Your task to perform on an android device: Add razer blade to the cart on target, then select checkout. Image 0: 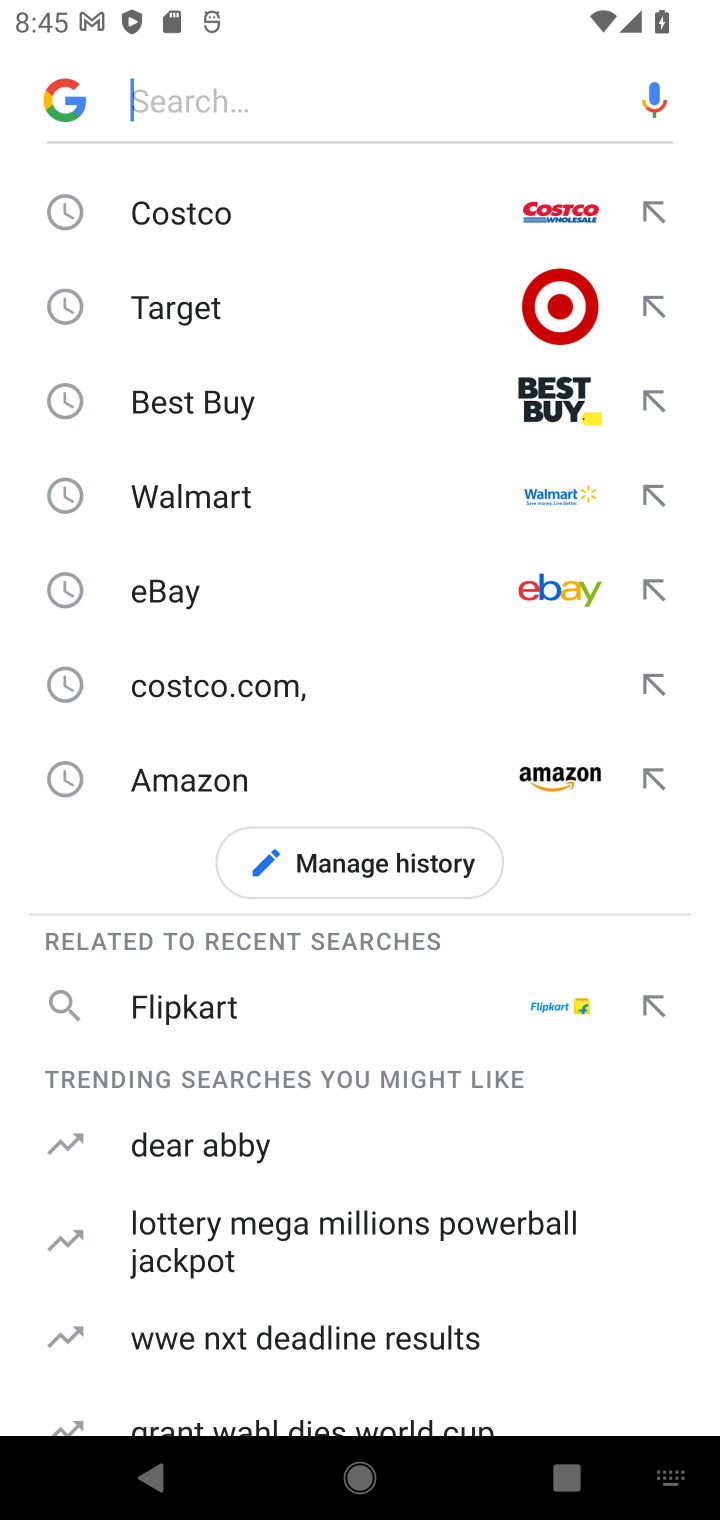
Step 0: click (241, 500)
Your task to perform on an android device: Add razer blade to the cart on target, then select checkout. Image 1: 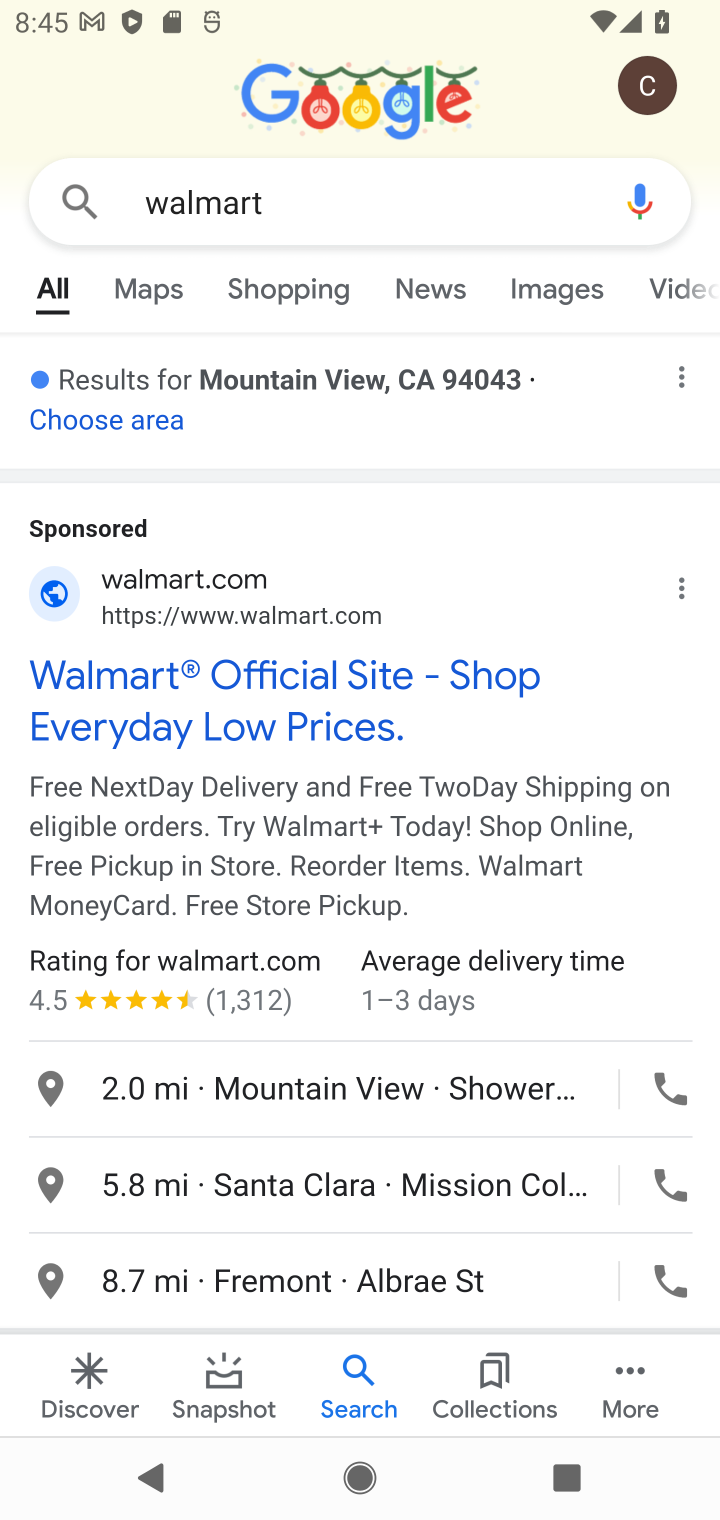
Step 1: click (168, 717)
Your task to perform on an android device: Add razer blade to the cart on target, then select checkout. Image 2: 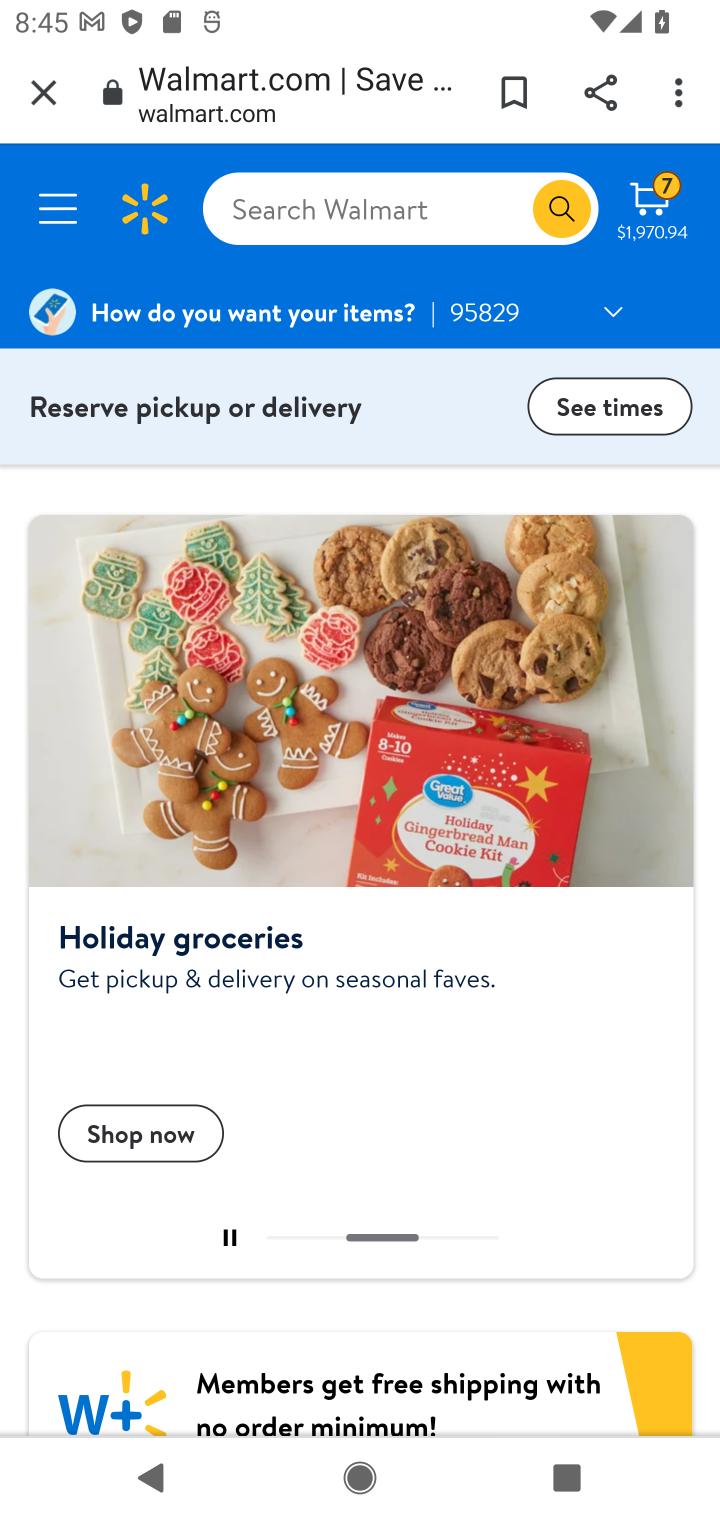
Step 2: click (317, 223)
Your task to perform on an android device: Add razer blade to the cart on target, then select checkout. Image 3: 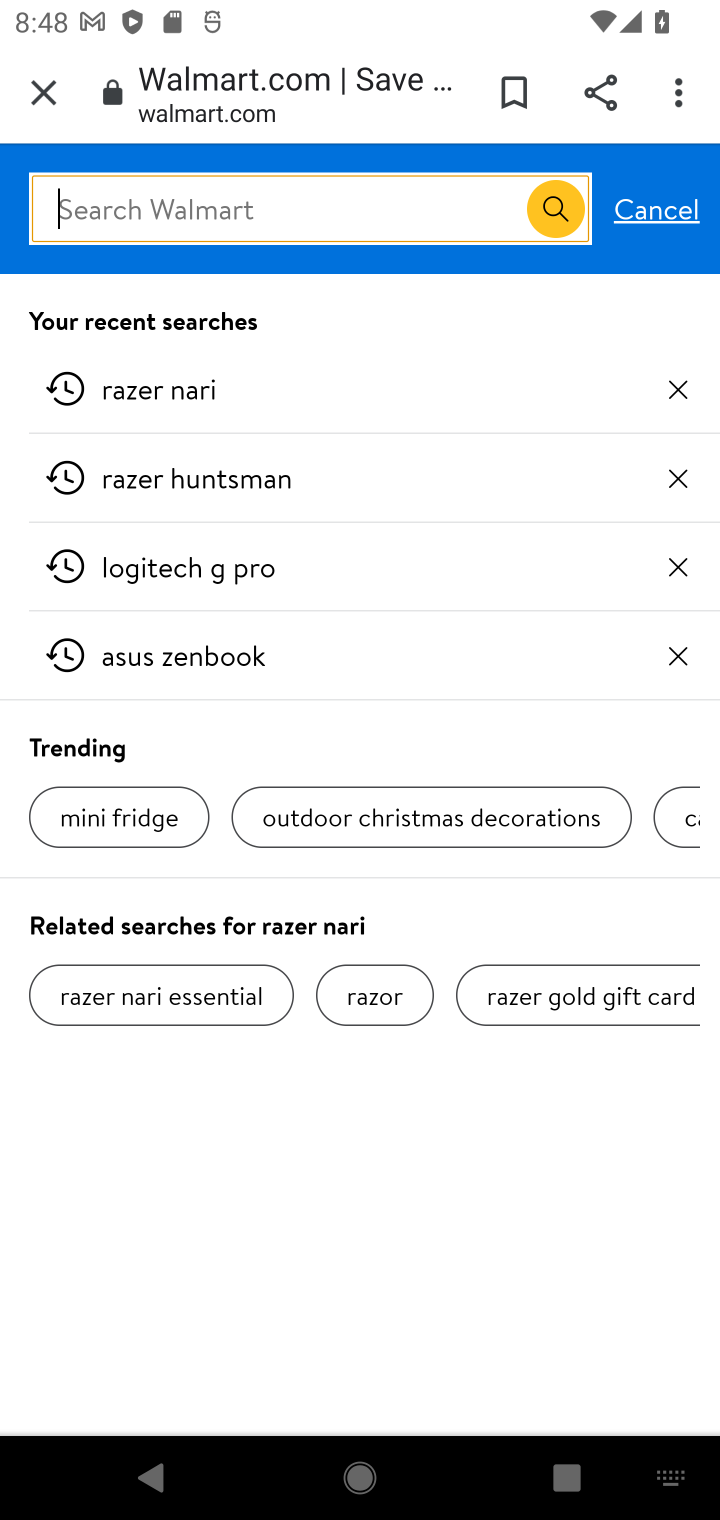
Step 3: type "razer blade"
Your task to perform on an android device: Add razer blade to the cart on target, then select checkout. Image 4: 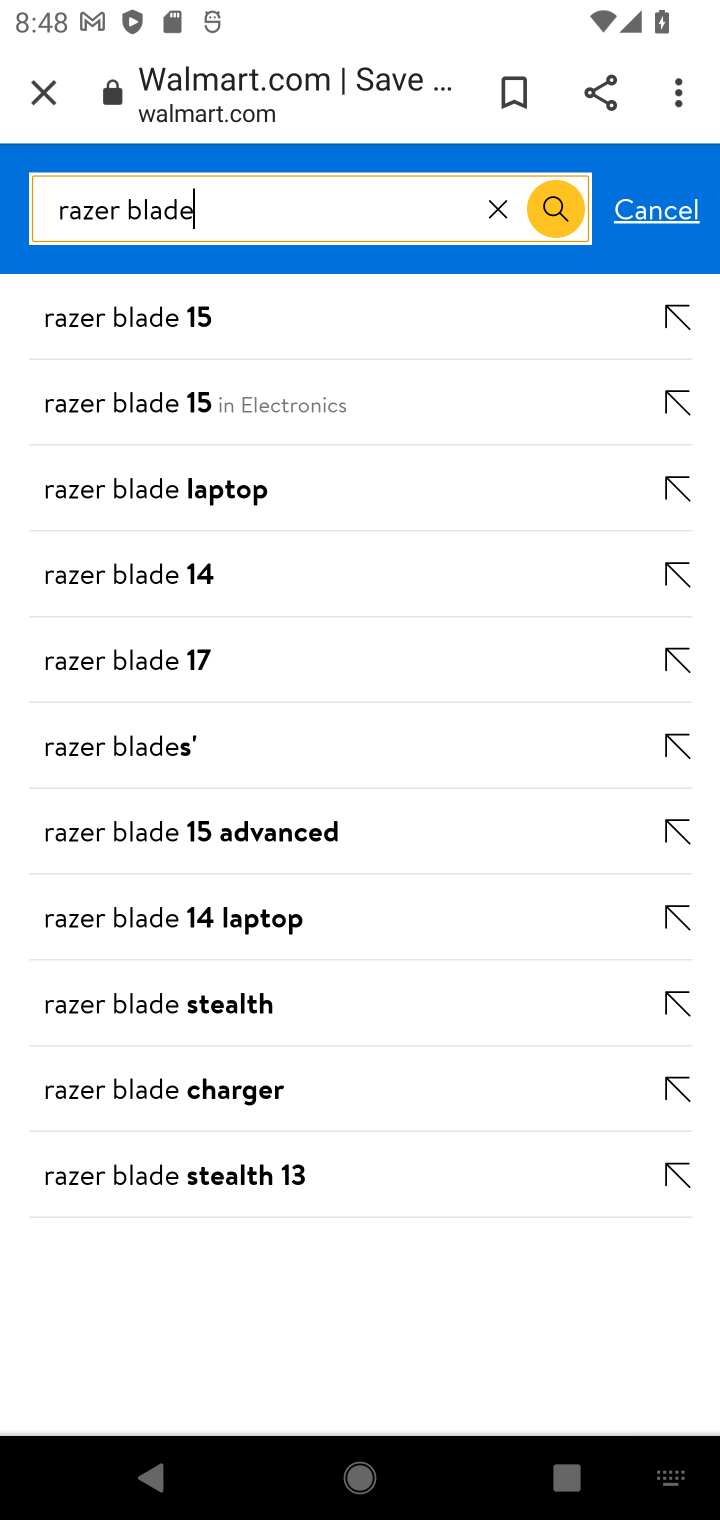
Step 4: click (196, 747)
Your task to perform on an android device: Add razer blade to the cart on target, then select checkout. Image 5: 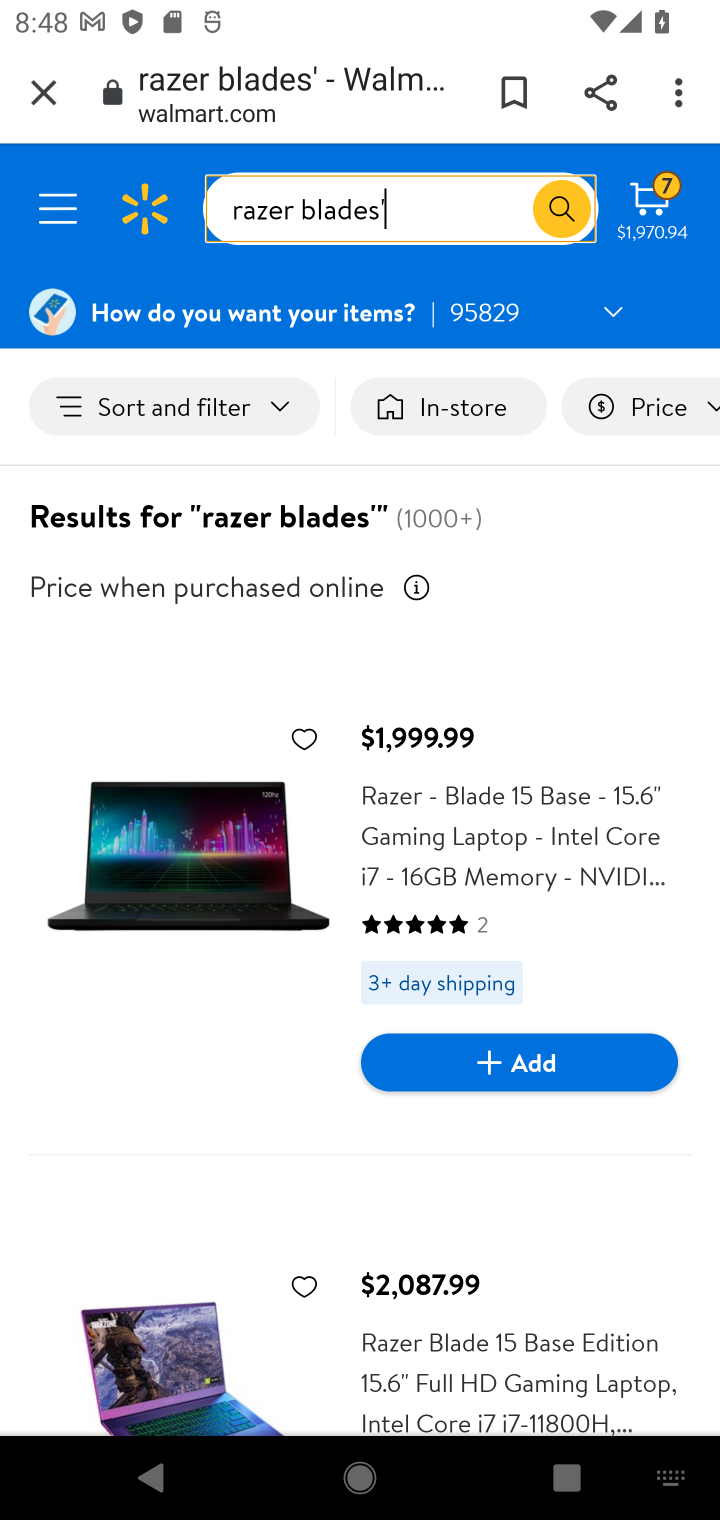
Step 5: click (548, 1045)
Your task to perform on an android device: Add razer blade to the cart on target, then select checkout. Image 6: 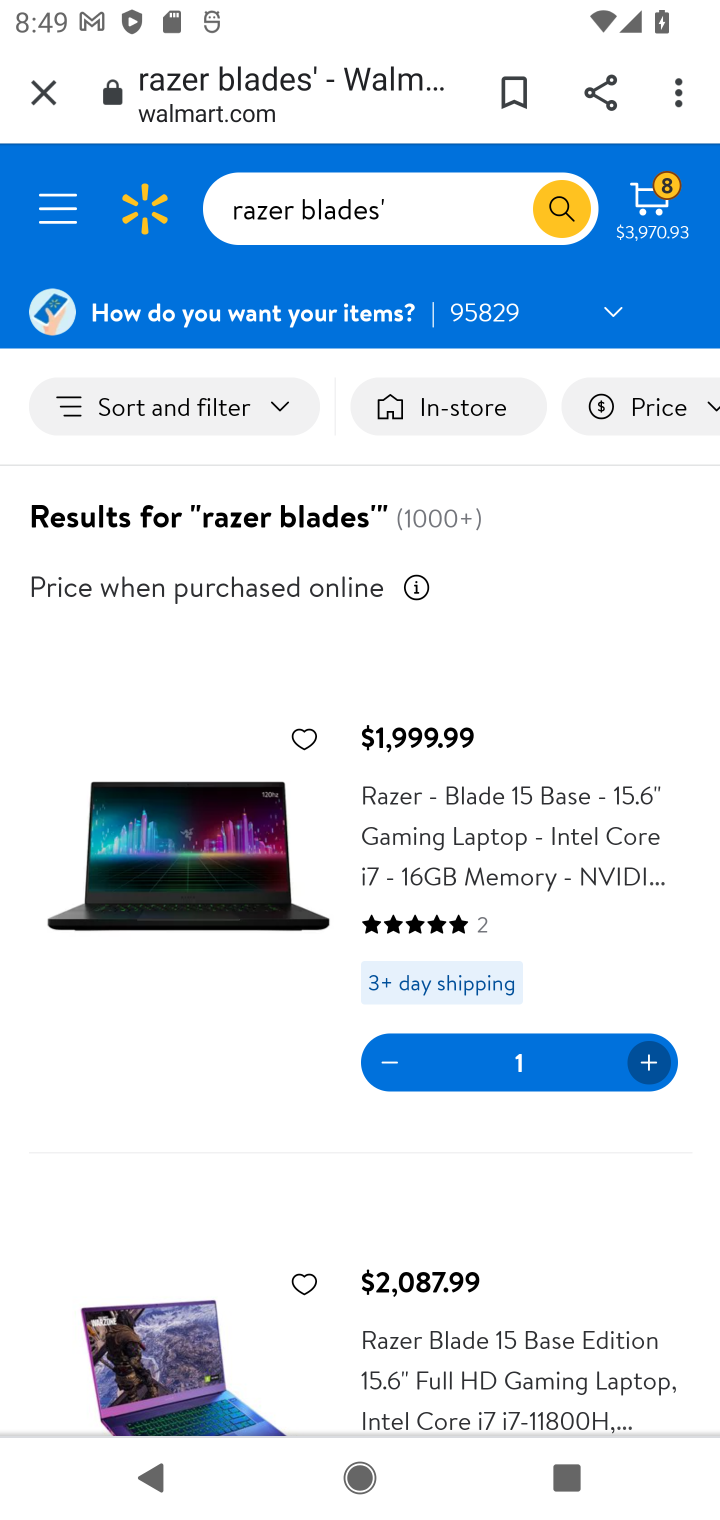
Step 6: task complete